Your task to perform on an android device: turn on location history Image 0: 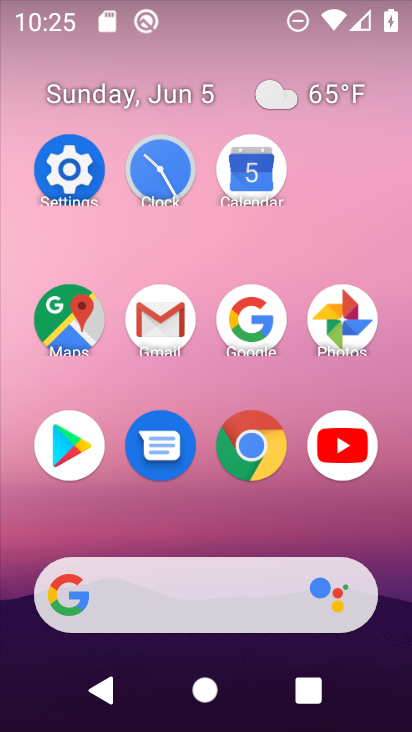
Step 0: click (61, 191)
Your task to perform on an android device: turn on location history Image 1: 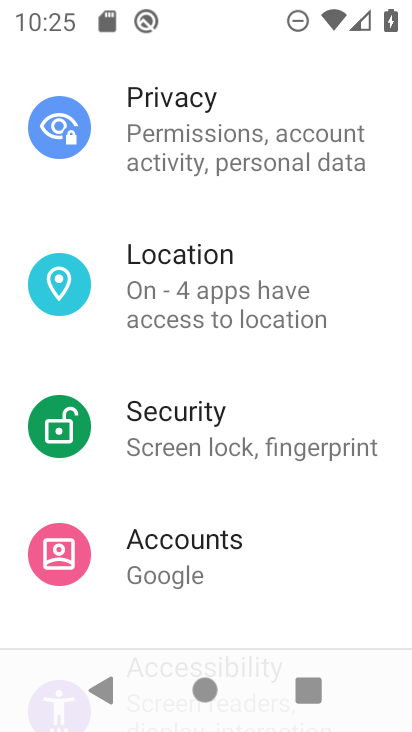
Step 1: click (209, 301)
Your task to perform on an android device: turn on location history Image 2: 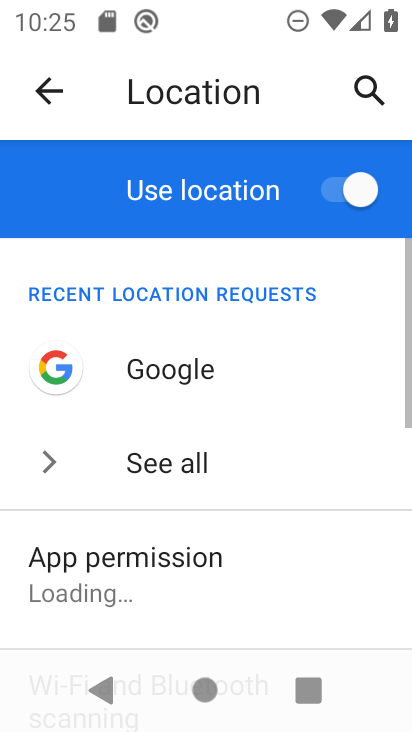
Step 2: drag from (223, 610) to (293, 156)
Your task to perform on an android device: turn on location history Image 3: 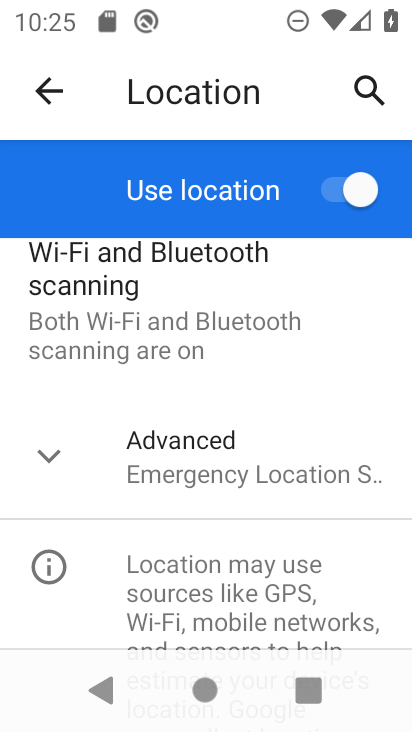
Step 3: click (221, 452)
Your task to perform on an android device: turn on location history Image 4: 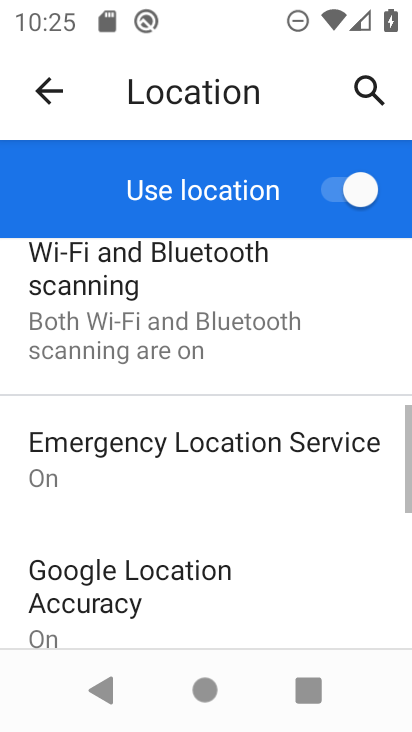
Step 4: drag from (205, 590) to (255, 259)
Your task to perform on an android device: turn on location history Image 5: 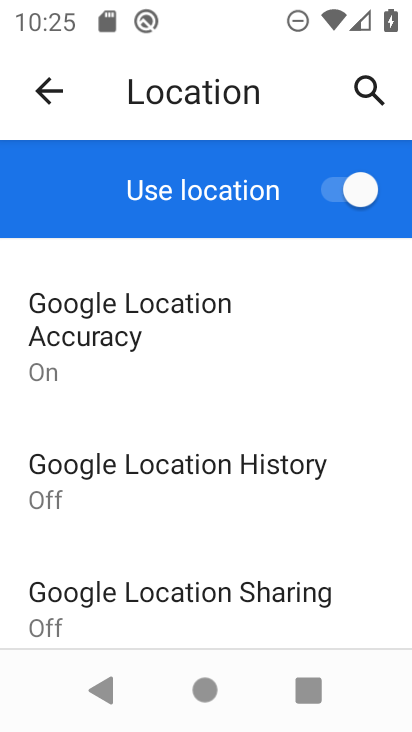
Step 5: click (266, 459)
Your task to perform on an android device: turn on location history Image 6: 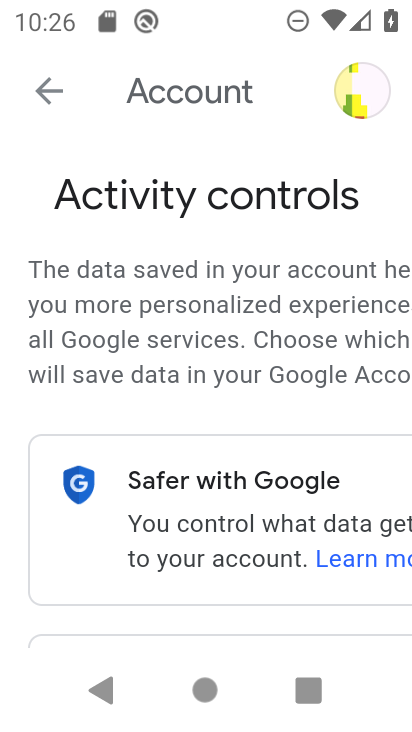
Step 6: task complete